Your task to perform on an android device: What is the news today? Image 0: 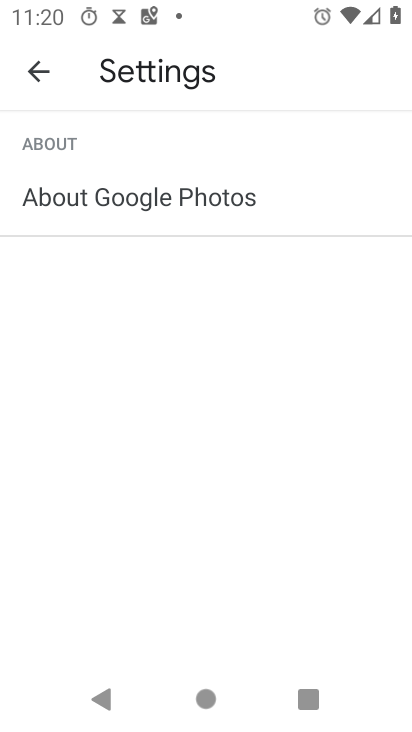
Step 0: press home button
Your task to perform on an android device: What is the news today? Image 1: 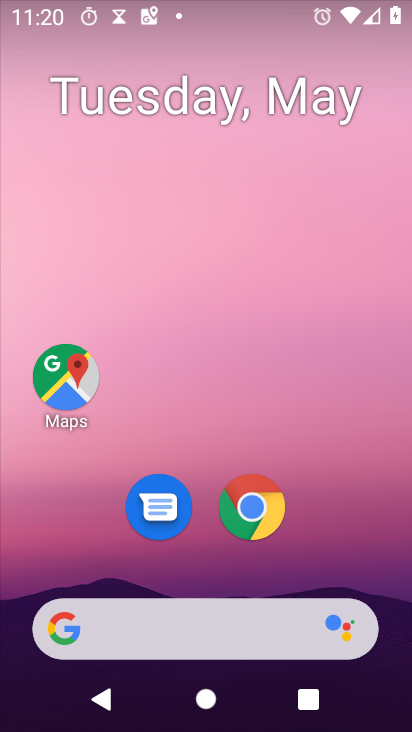
Step 1: click (204, 635)
Your task to perform on an android device: What is the news today? Image 2: 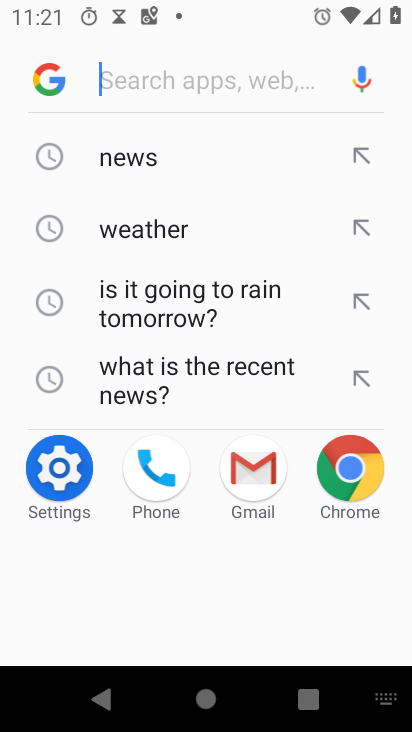
Step 2: click (140, 164)
Your task to perform on an android device: What is the news today? Image 3: 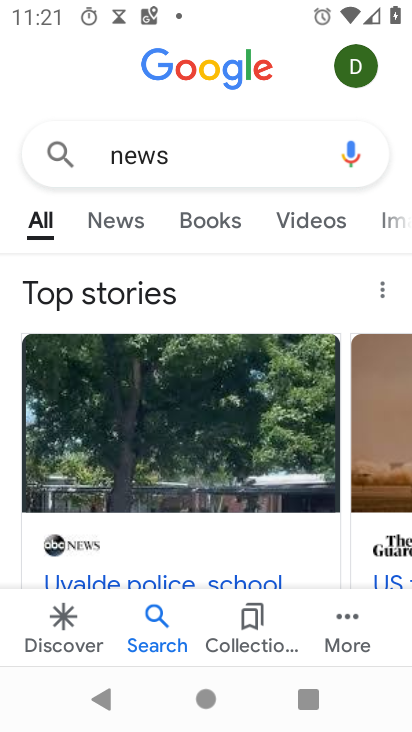
Step 3: task complete